Your task to perform on an android device: Go to Amazon Image 0: 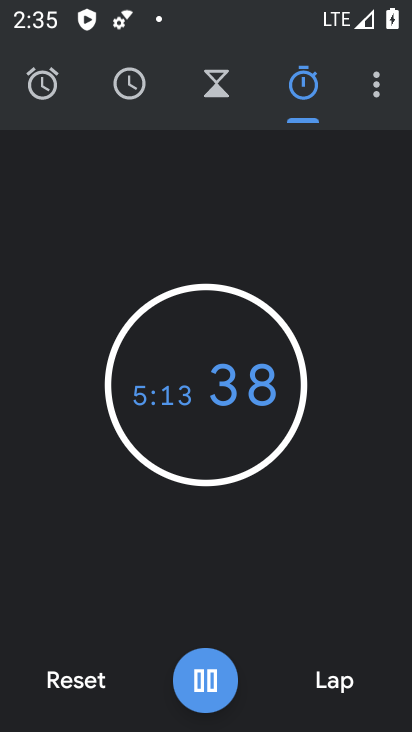
Step 0: press home button
Your task to perform on an android device: Go to Amazon Image 1: 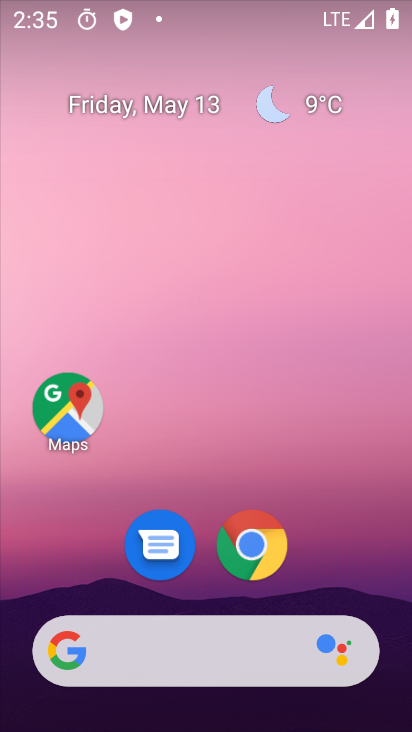
Step 1: drag from (308, 584) to (342, 132)
Your task to perform on an android device: Go to Amazon Image 2: 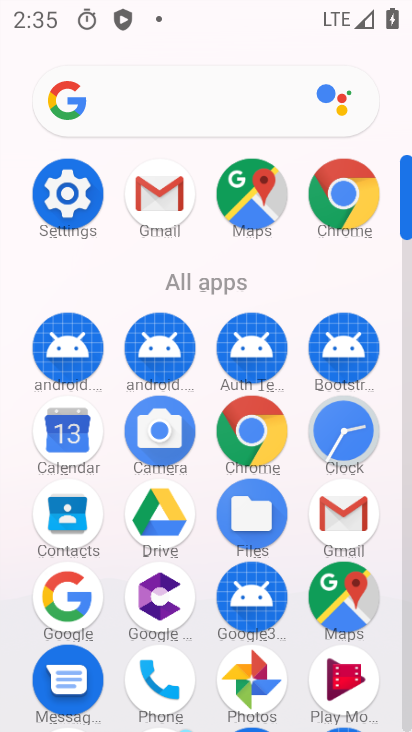
Step 2: click (259, 437)
Your task to perform on an android device: Go to Amazon Image 3: 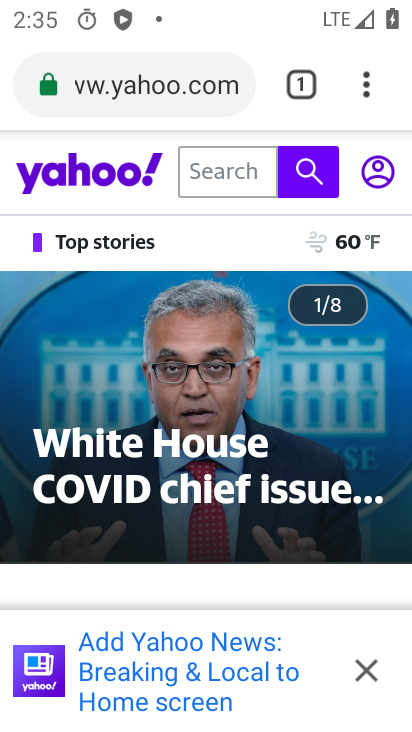
Step 3: drag from (369, 83) to (113, 180)
Your task to perform on an android device: Go to Amazon Image 4: 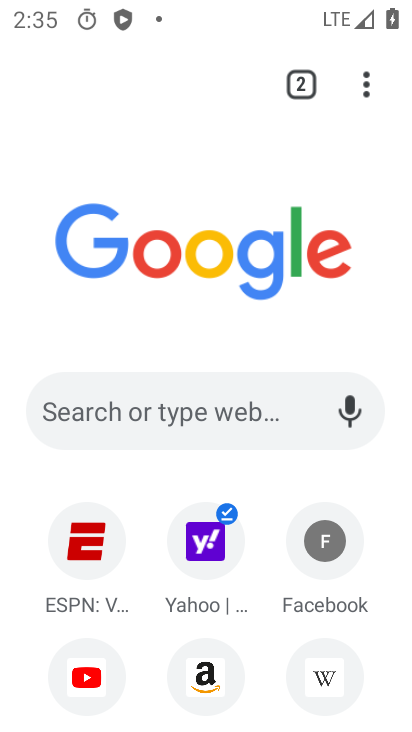
Step 4: click (190, 668)
Your task to perform on an android device: Go to Amazon Image 5: 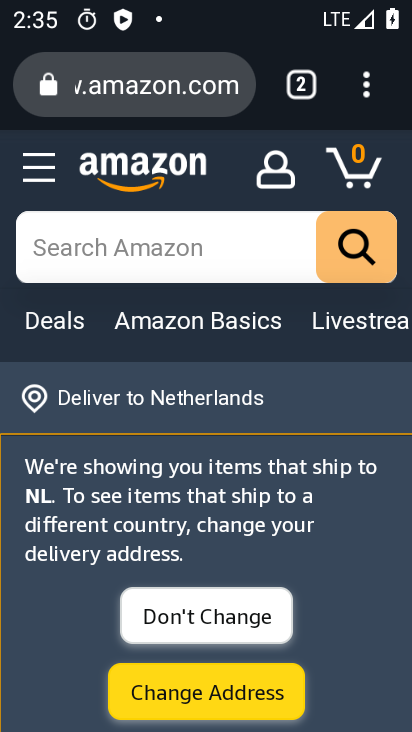
Step 5: task complete